Your task to perform on an android device: Show me recent news Image 0: 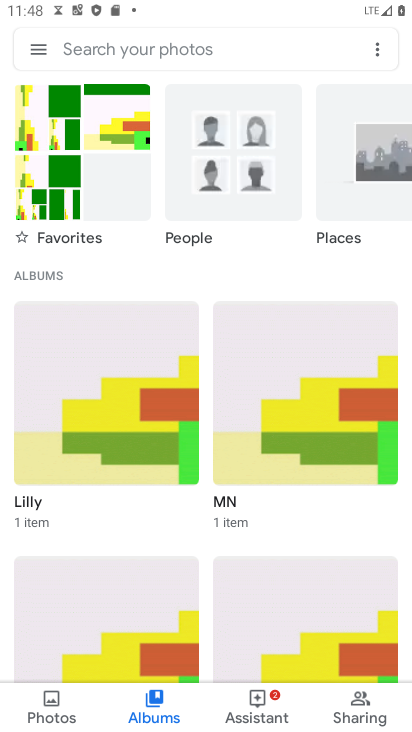
Step 0: press home button
Your task to perform on an android device: Show me recent news Image 1: 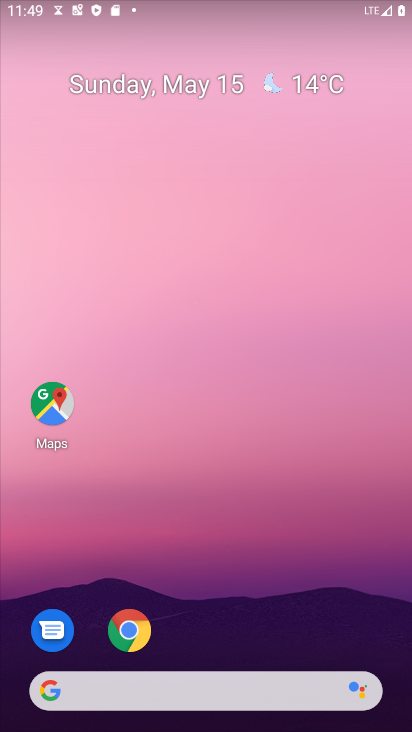
Step 1: click (104, 686)
Your task to perform on an android device: Show me recent news Image 2: 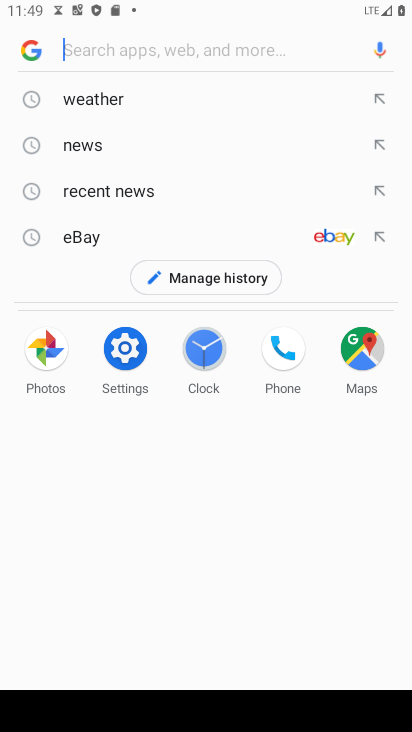
Step 2: click (79, 132)
Your task to perform on an android device: Show me recent news Image 3: 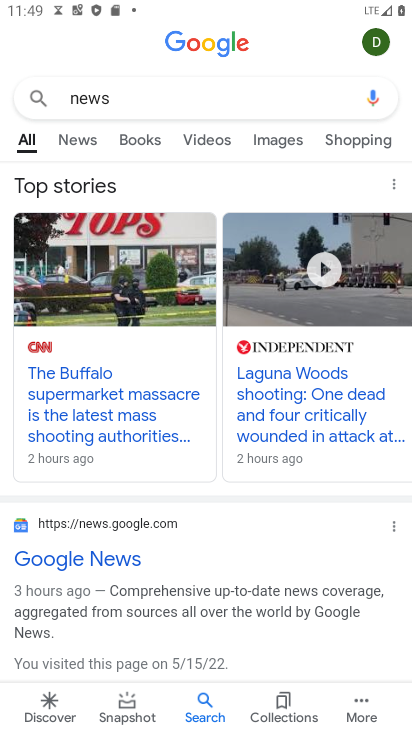
Step 3: task complete